Your task to perform on an android device: Go to Google Image 0: 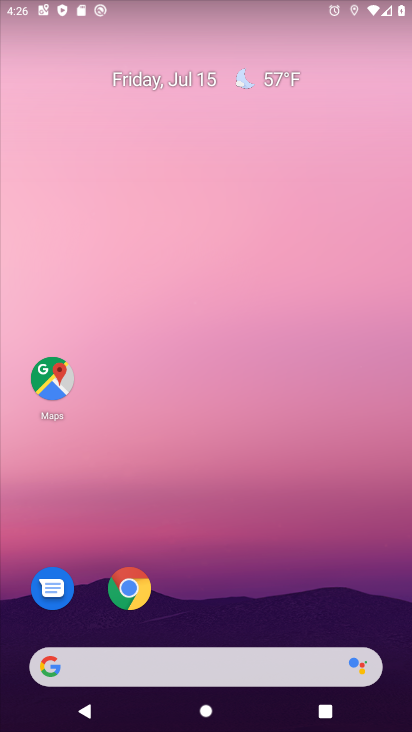
Step 0: drag from (196, 660) to (257, 88)
Your task to perform on an android device: Go to Google Image 1: 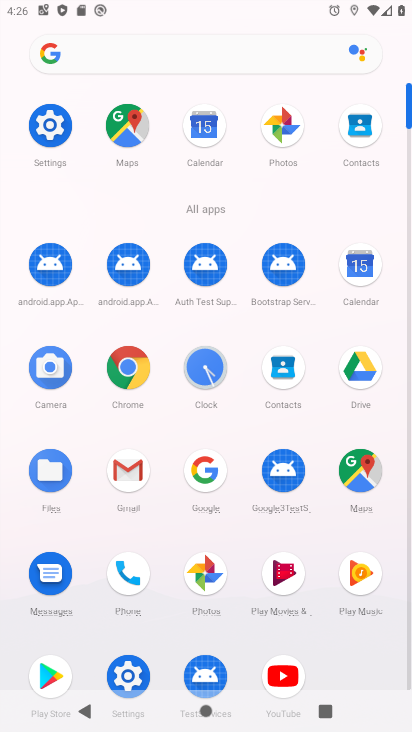
Step 1: click (201, 471)
Your task to perform on an android device: Go to Google Image 2: 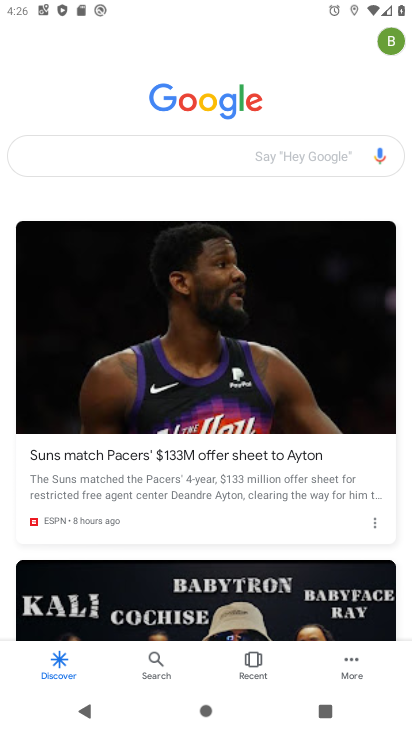
Step 2: task complete